Your task to perform on an android device: Clear all items from cart on costco.com. Add duracell triple a to the cart on costco.com Image 0: 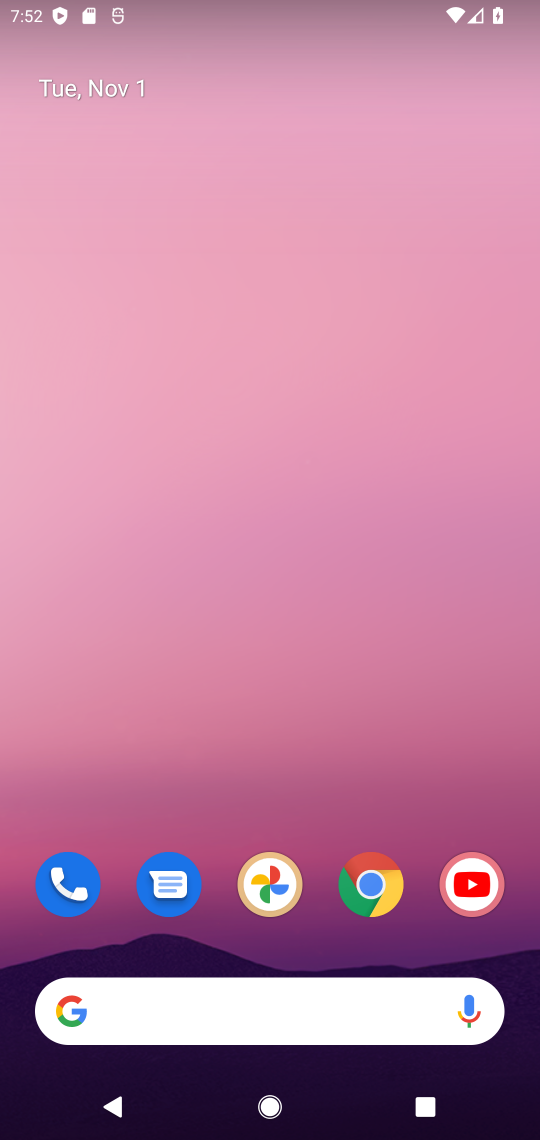
Step 0: click (366, 884)
Your task to perform on an android device: Clear all items from cart on costco.com. Add duracell triple a to the cart on costco.com Image 1: 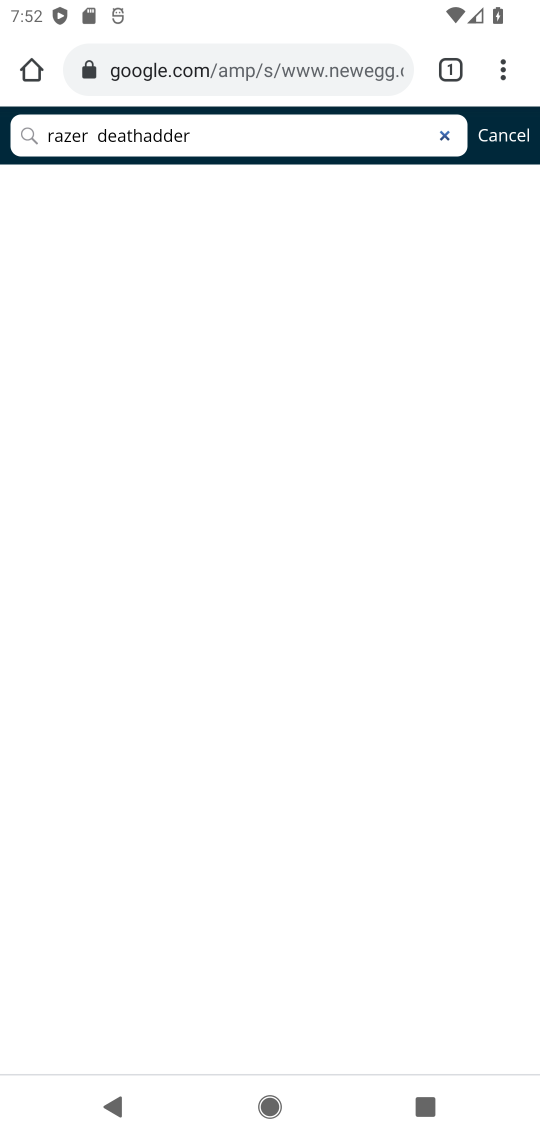
Step 1: click (356, 63)
Your task to perform on an android device: Clear all items from cart on costco.com. Add duracell triple a to the cart on costco.com Image 2: 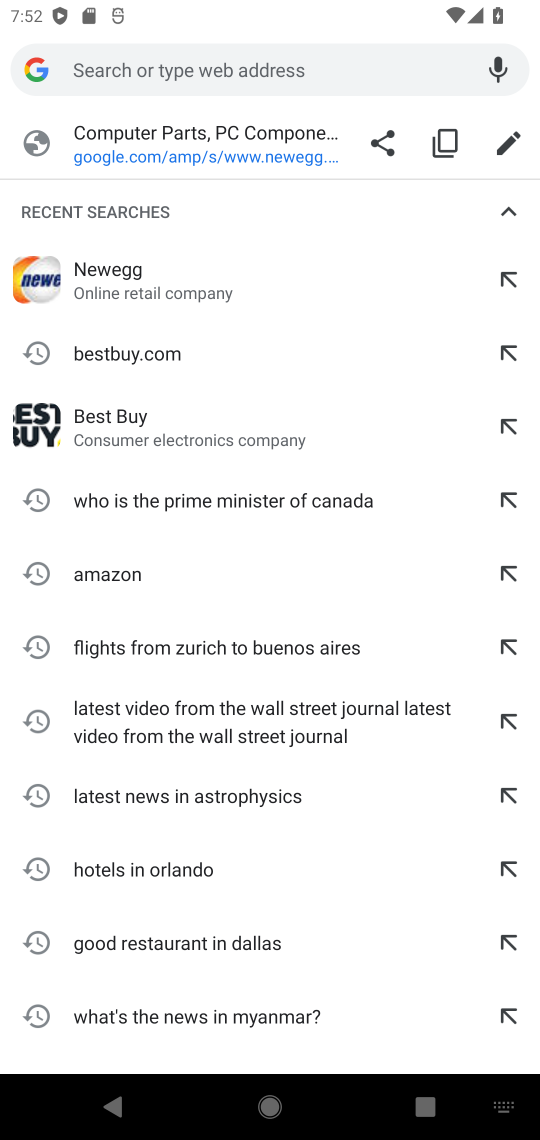
Step 2: type "costco.com"
Your task to perform on an android device: Clear all items from cart on costco.com. Add duracell triple a to the cart on costco.com Image 3: 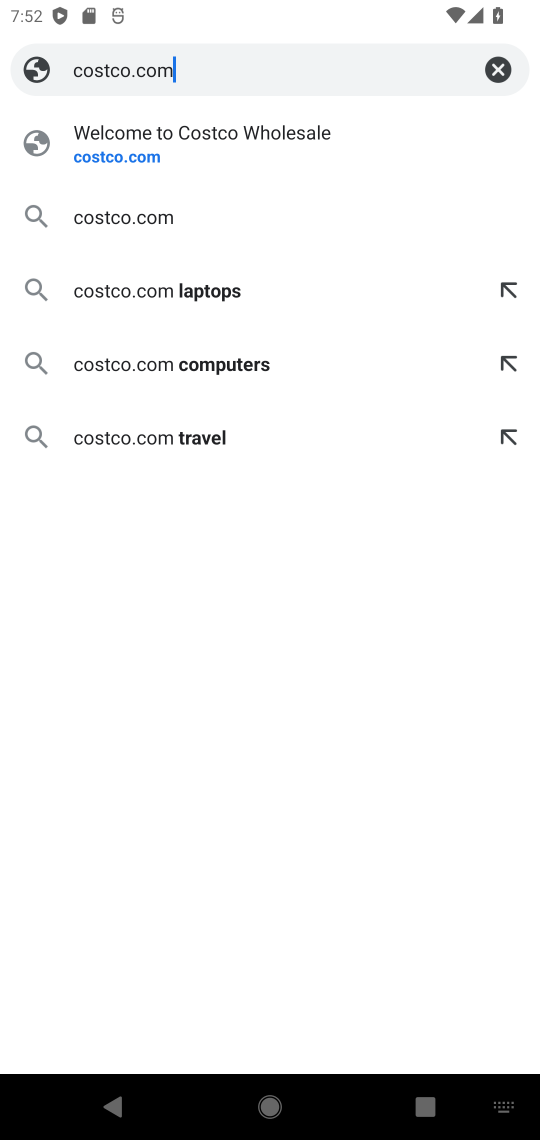
Step 3: click (120, 215)
Your task to perform on an android device: Clear all items from cart on costco.com. Add duracell triple a to the cart on costco.com Image 4: 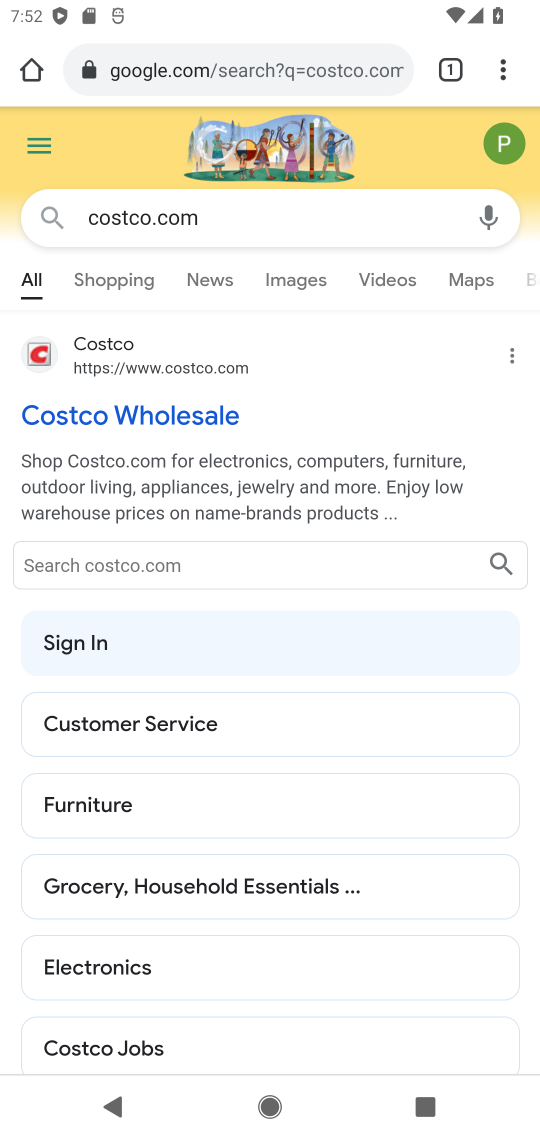
Step 4: click (64, 421)
Your task to perform on an android device: Clear all items from cart on costco.com. Add duracell triple a to the cart on costco.com Image 5: 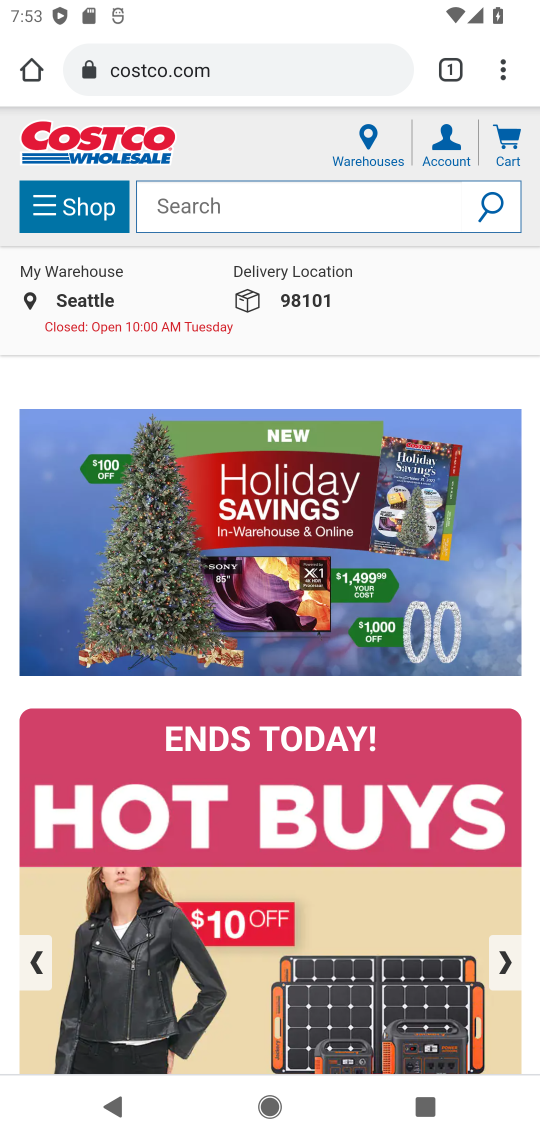
Step 5: click (509, 144)
Your task to perform on an android device: Clear all items from cart on costco.com. Add duracell triple a to the cart on costco.com Image 6: 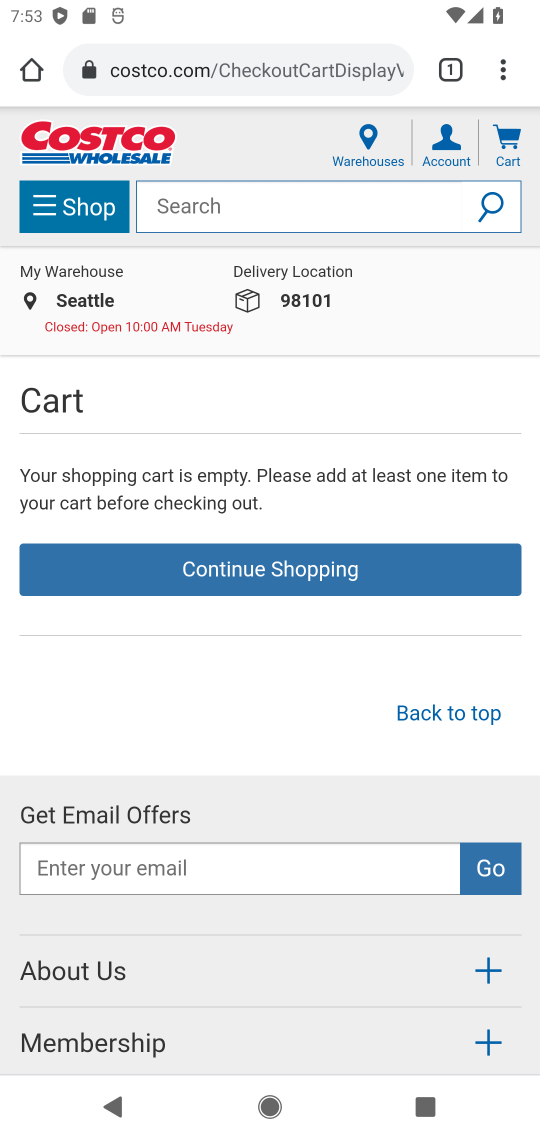
Step 6: click (305, 213)
Your task to perform on an android device: Clear all items from cart on costco.com. Add duracell triple a to the cart on costco.com Image 7: 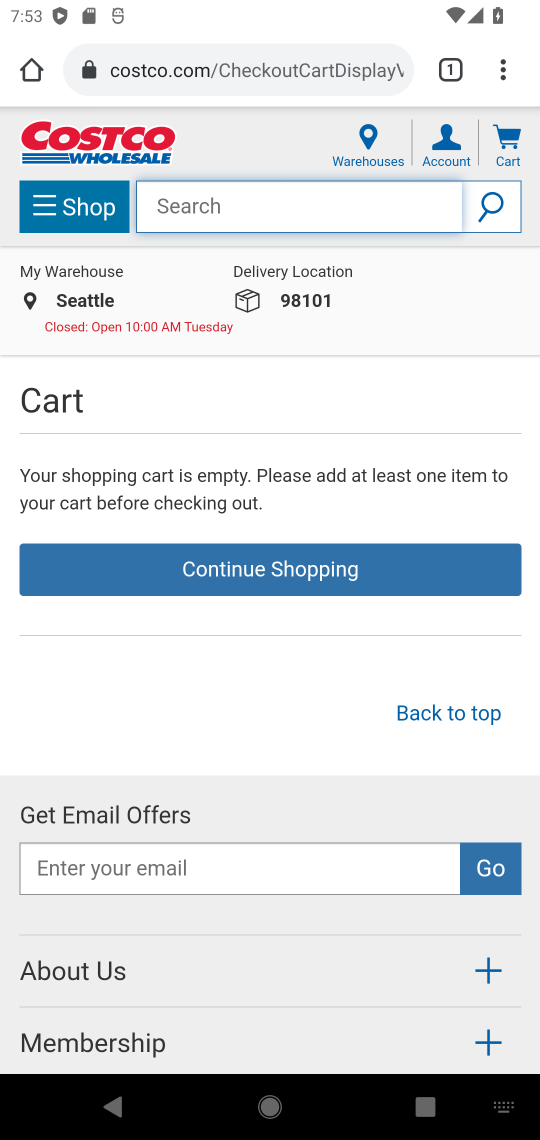
Step 7: type "duracell triple a"
Your task to perform on an android device: Clear all items from cart on costco.com. Add duracell triple a to the cart on costco.com Image 8: 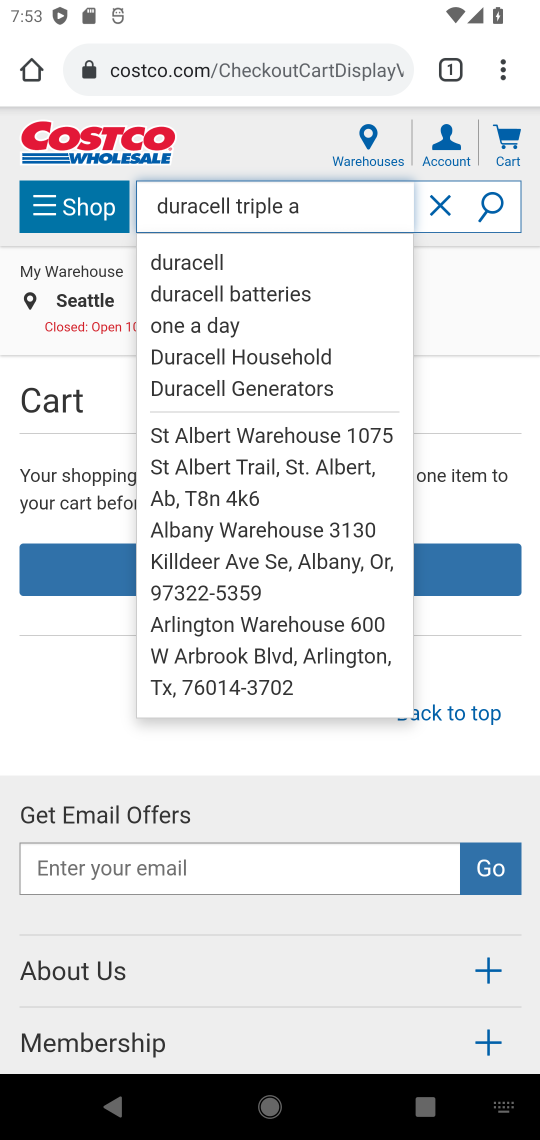
Step 8: click (488, 209)
Your task to perform on an android device: Clear all items from cart on costco.com. Add duracell triple a to the cart on costco.com Image 9: 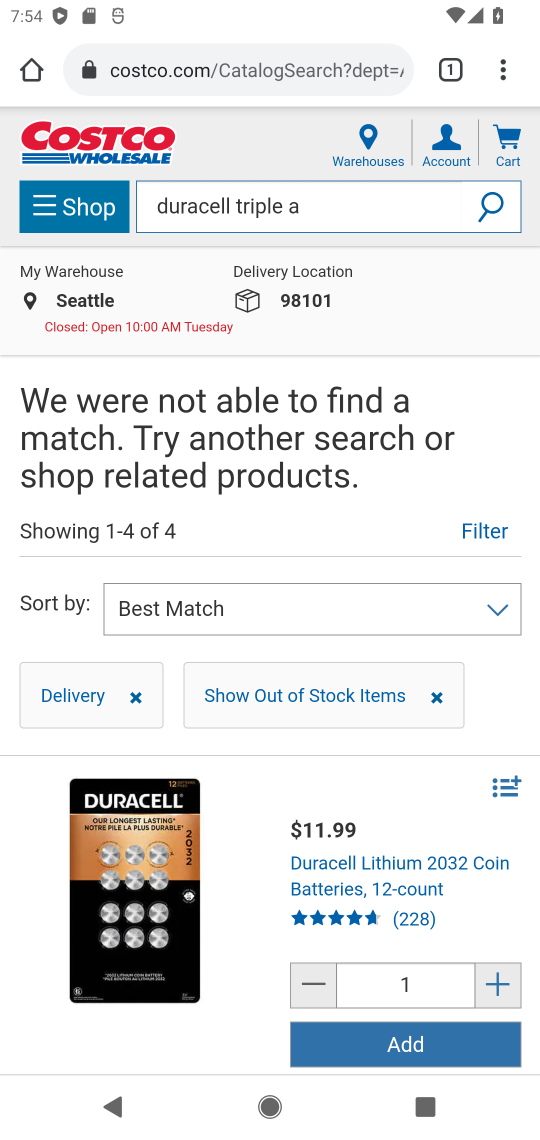
Step 9: task complete